Your task to perform on an android device: Show me recent news Image 0: 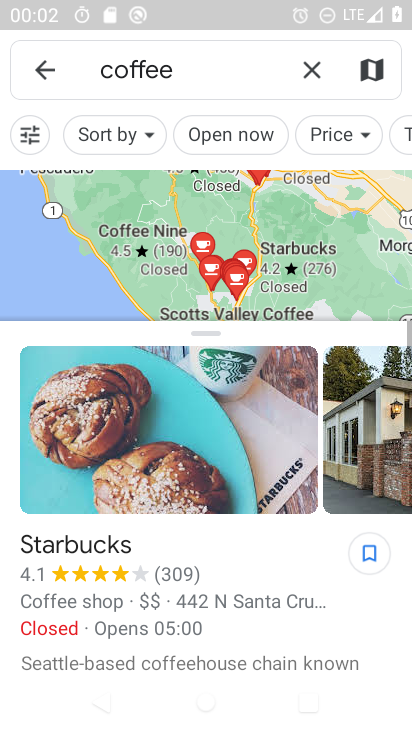
Step 0: press home button
Your task to perform on an android device: Show me recent news Image 1: 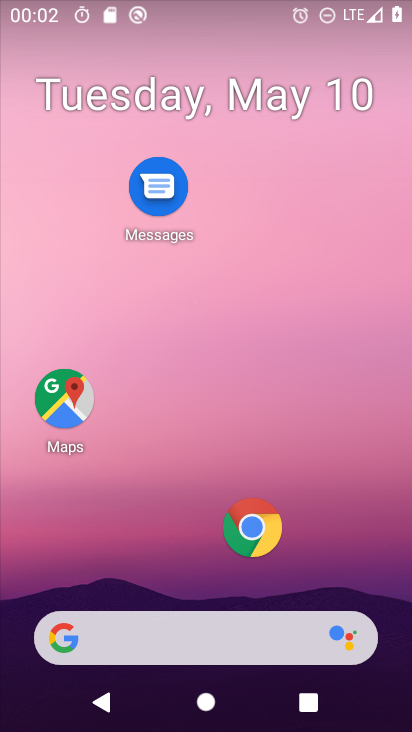
Step 1: drag from (196, 584) to (132, 48)
Your task to perform on an android device: Show me recent news Image 2: 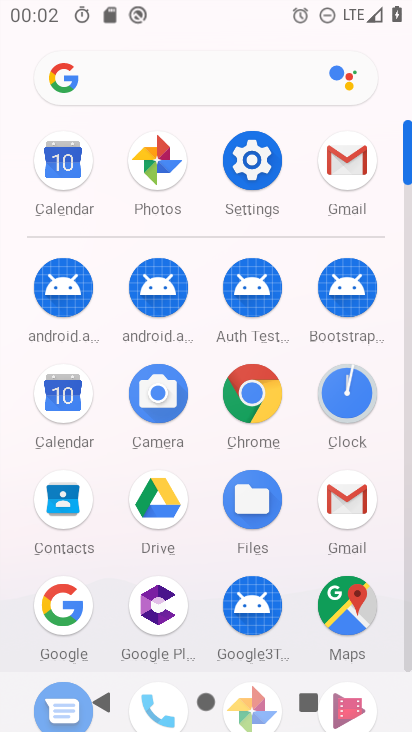
Step 2: click (68, 604)
Your task to perform on an android device: Show me recent news Image 3: 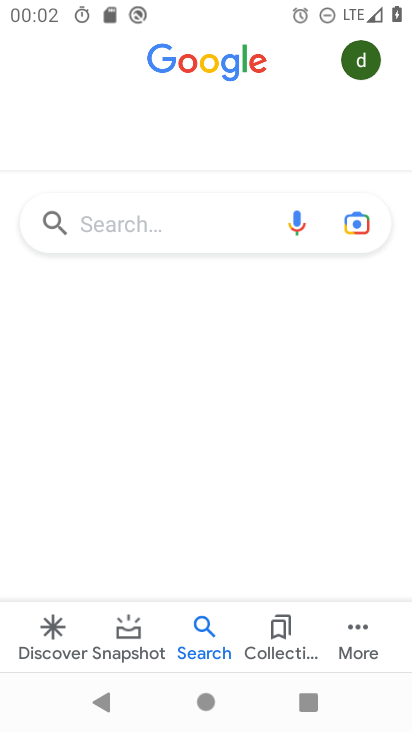
Step 3: click (150, 230)
Your task to perform on an android device: Show me recent news Image 4: 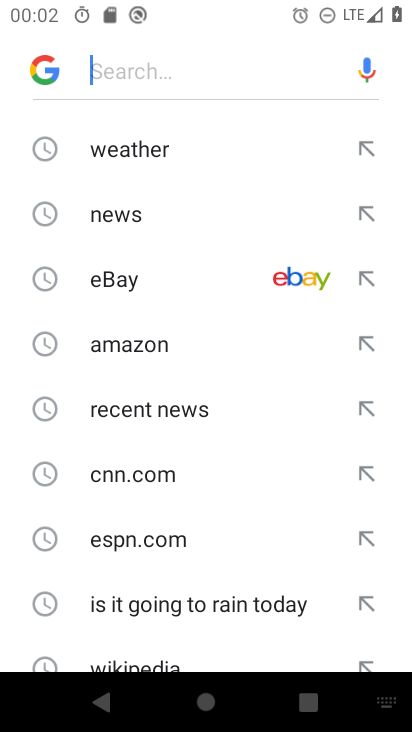
Step 4: type "recent news"
Your task to perform on an android device: Show me recent news Image 5: 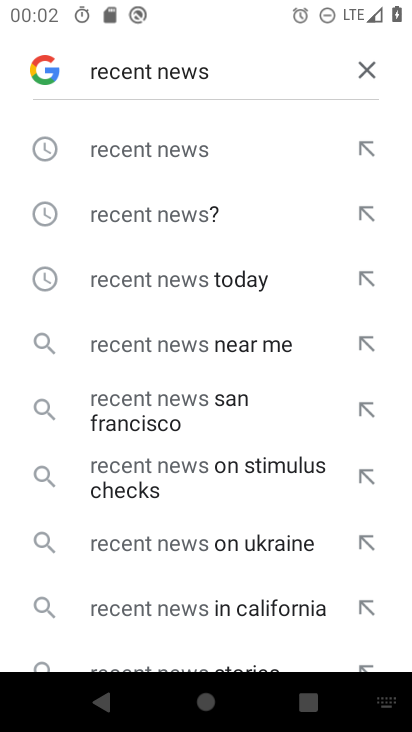
Step 5: click (182, 146)
Your task to perform on an android device: Show me recent news Image 6: 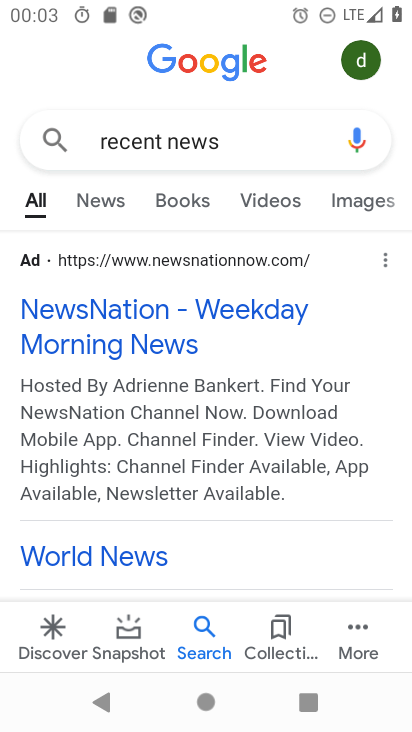
Step 6: task complete